Your task to perform on an android device: install app "Grab" Image 0: 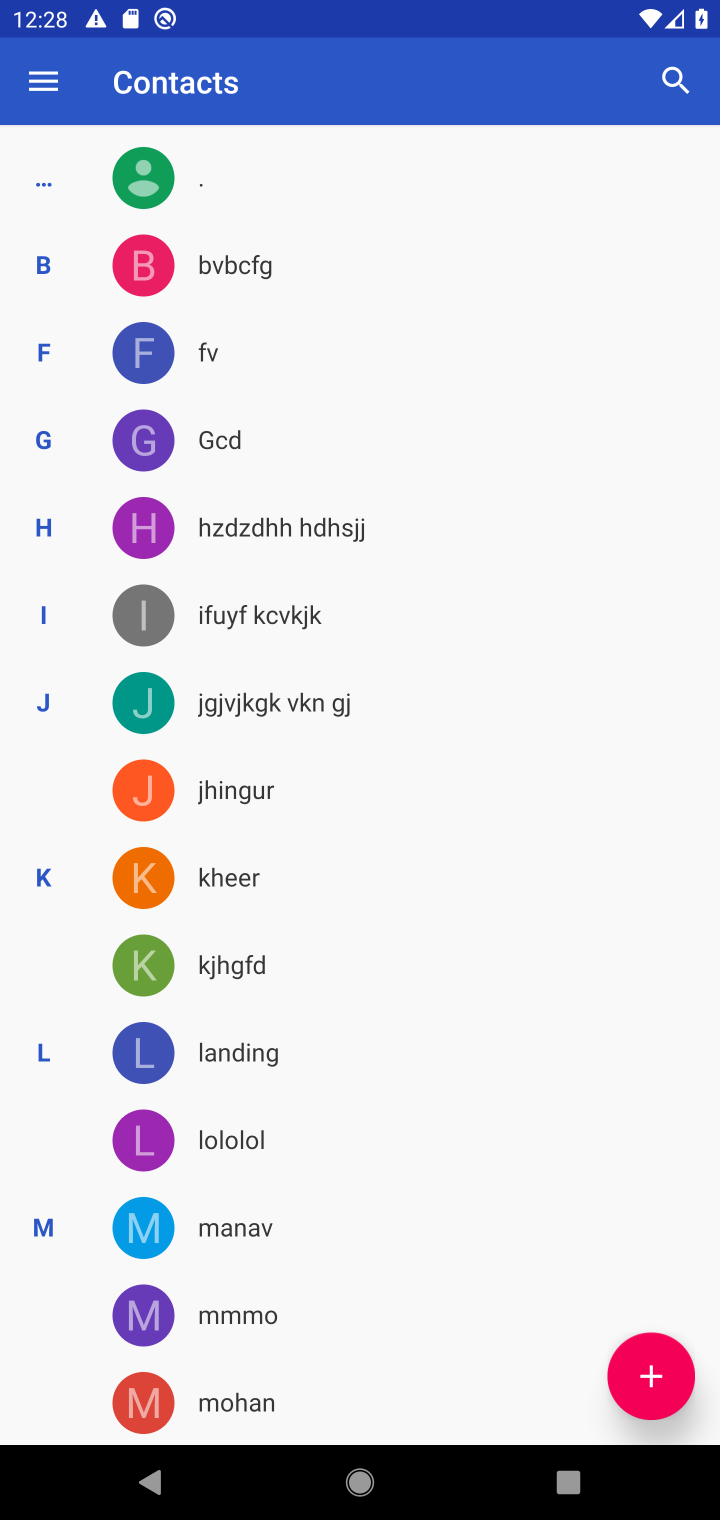
Step 0: press home button
Your task to perform on an android device: install app "Grab" Image 1: 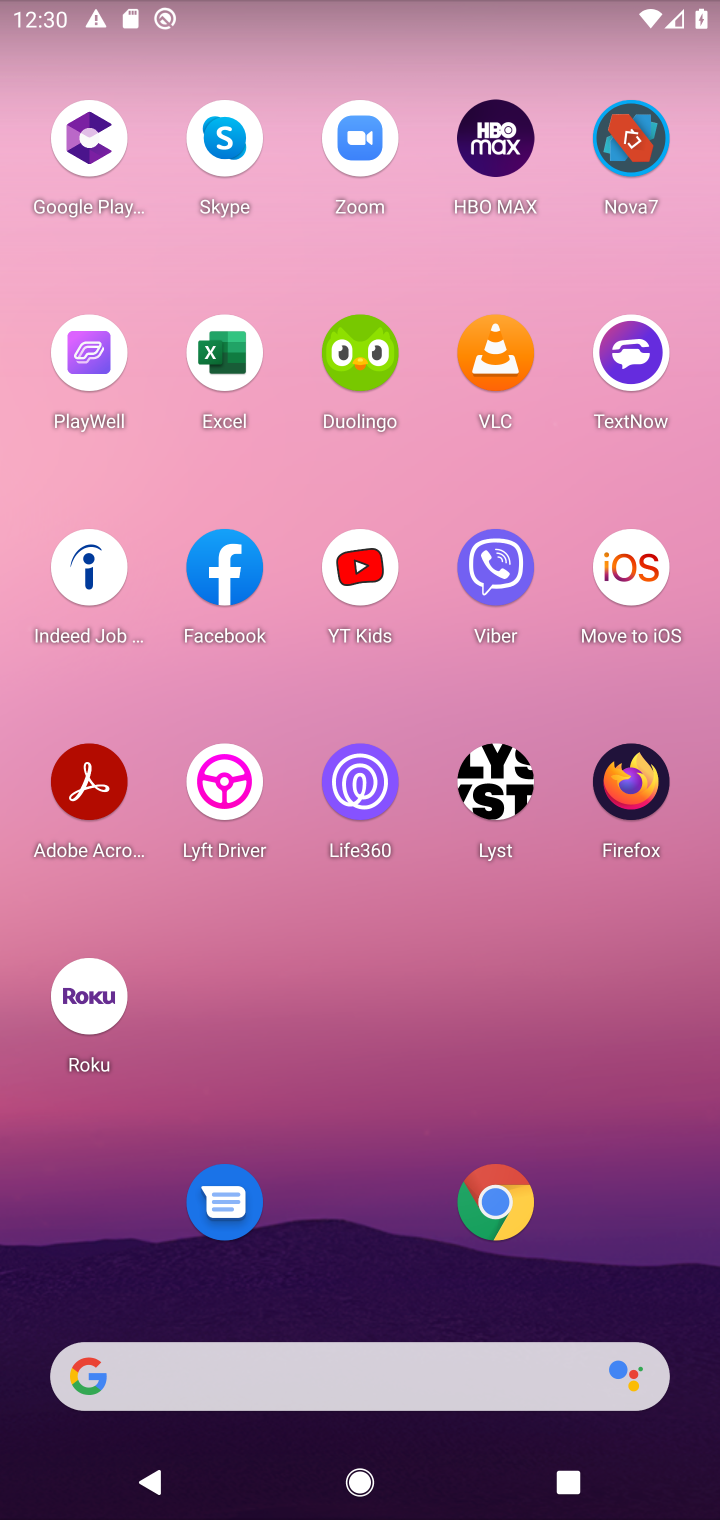
Step 1: click (341, 1364)
Your task to perform on an android device: install app "Grab" Image 2: 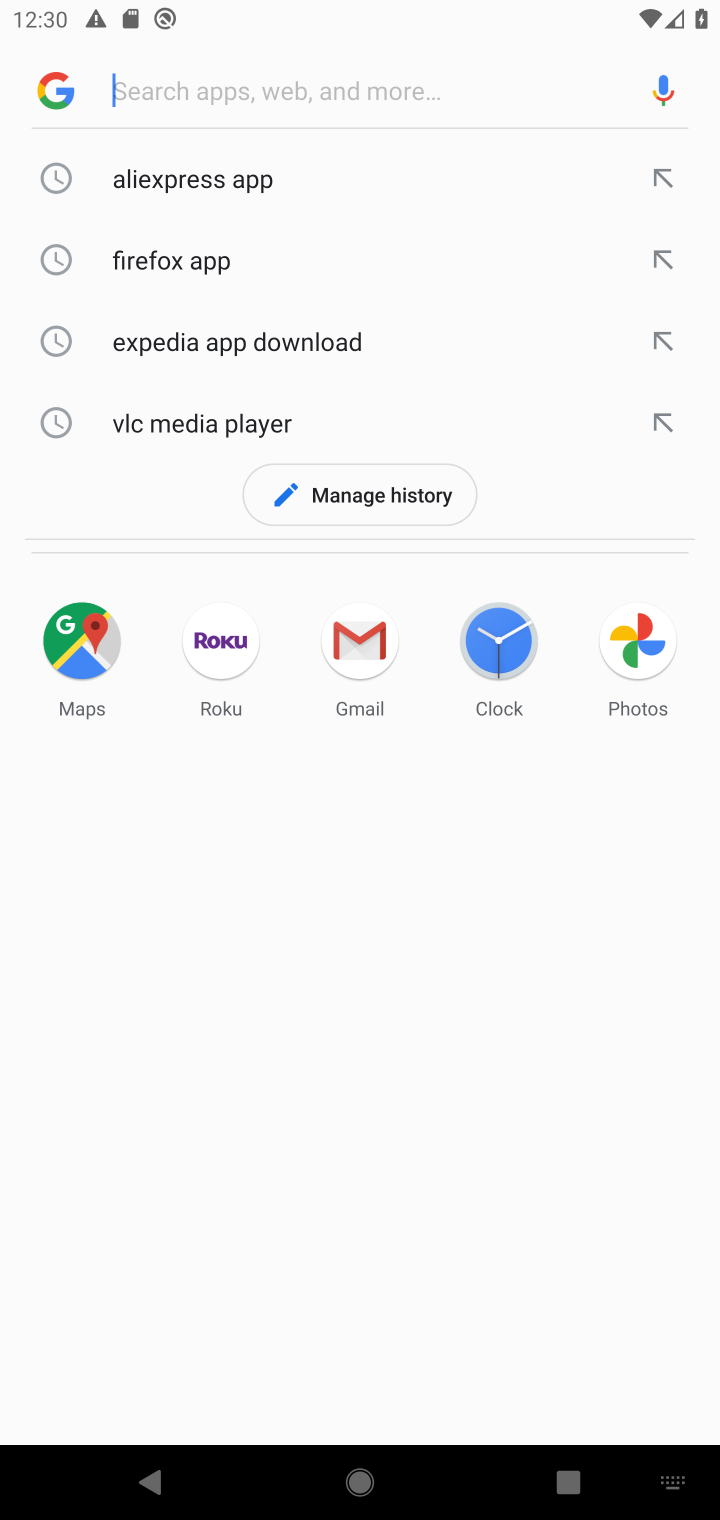
Step 2: type "grab"
Your task to perform on an android device: install app "Grab" Image 3: 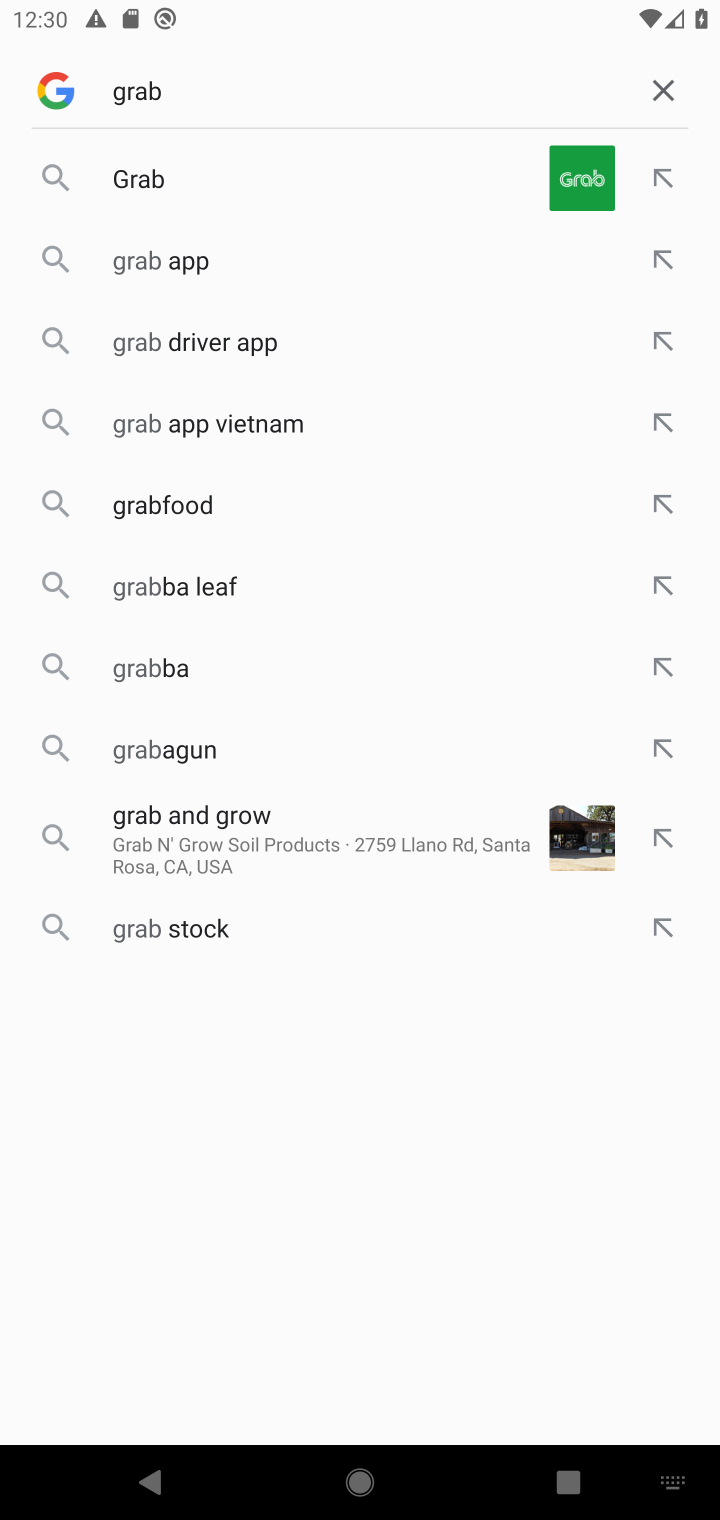
Step 3: click (294, 196)
Your task to perform on an android device: install app "Grab" Image 4: 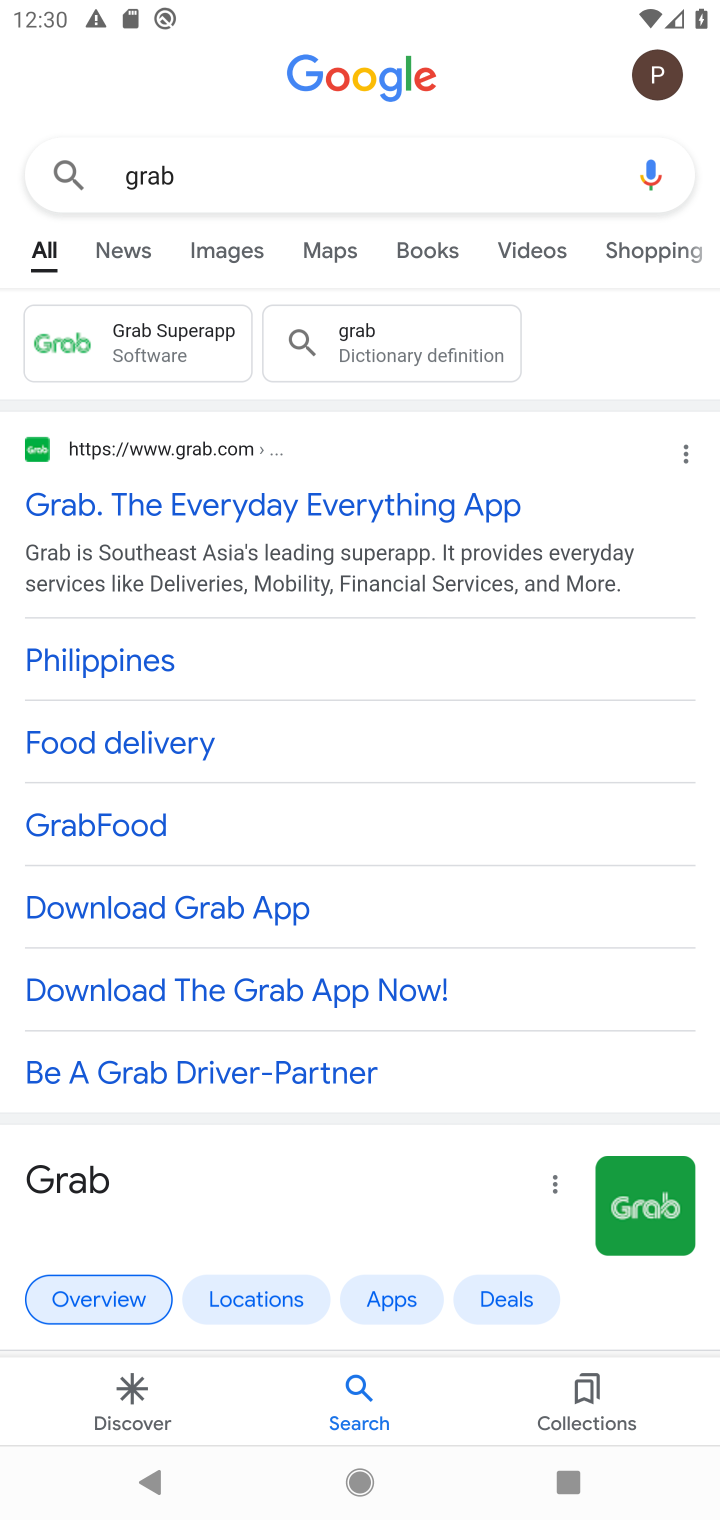
Step 4: drag from (503, 1213) to (461, 310)
Your task to perform on an android device: install app "Grab" Image 5: 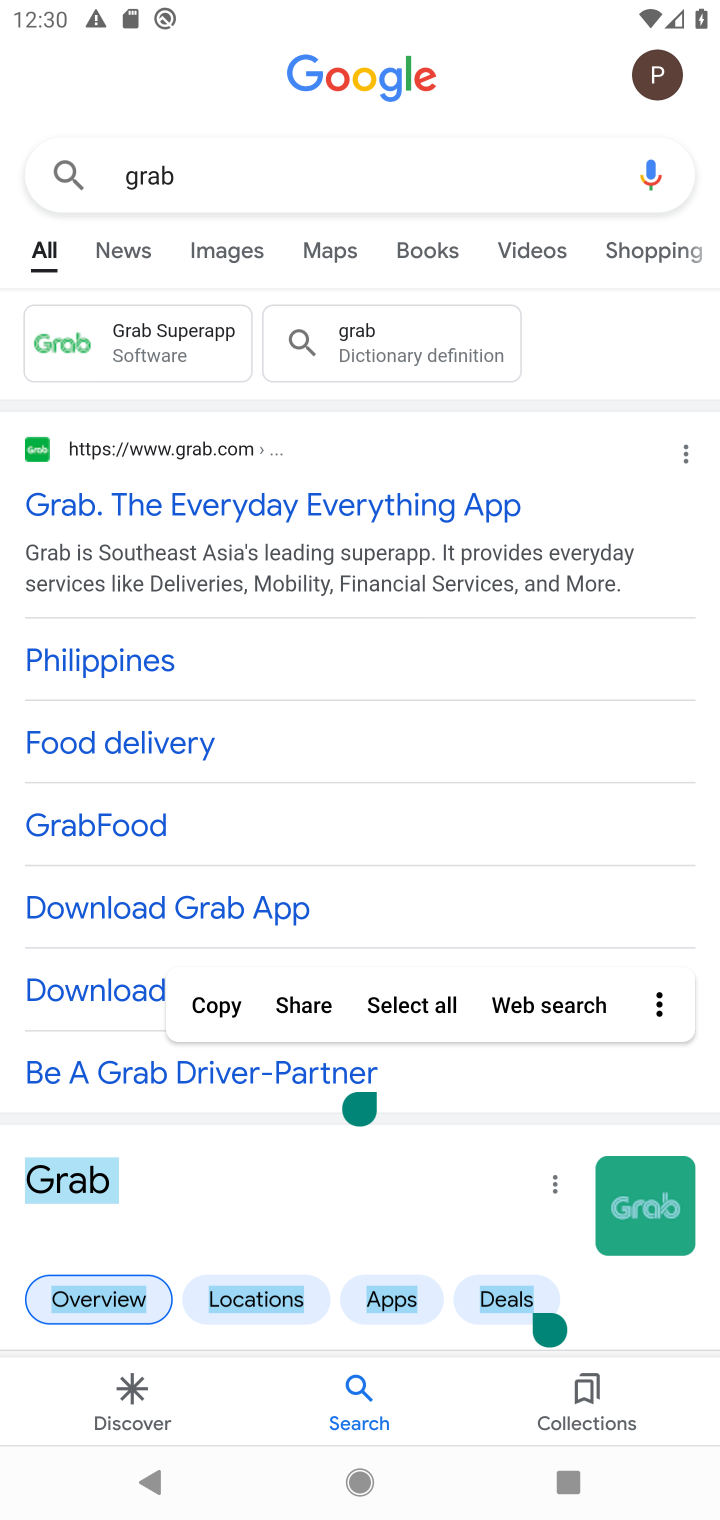
Step 5: click (316, 1182)
Your task to perform on an android device: install app "Grab" Image 6: 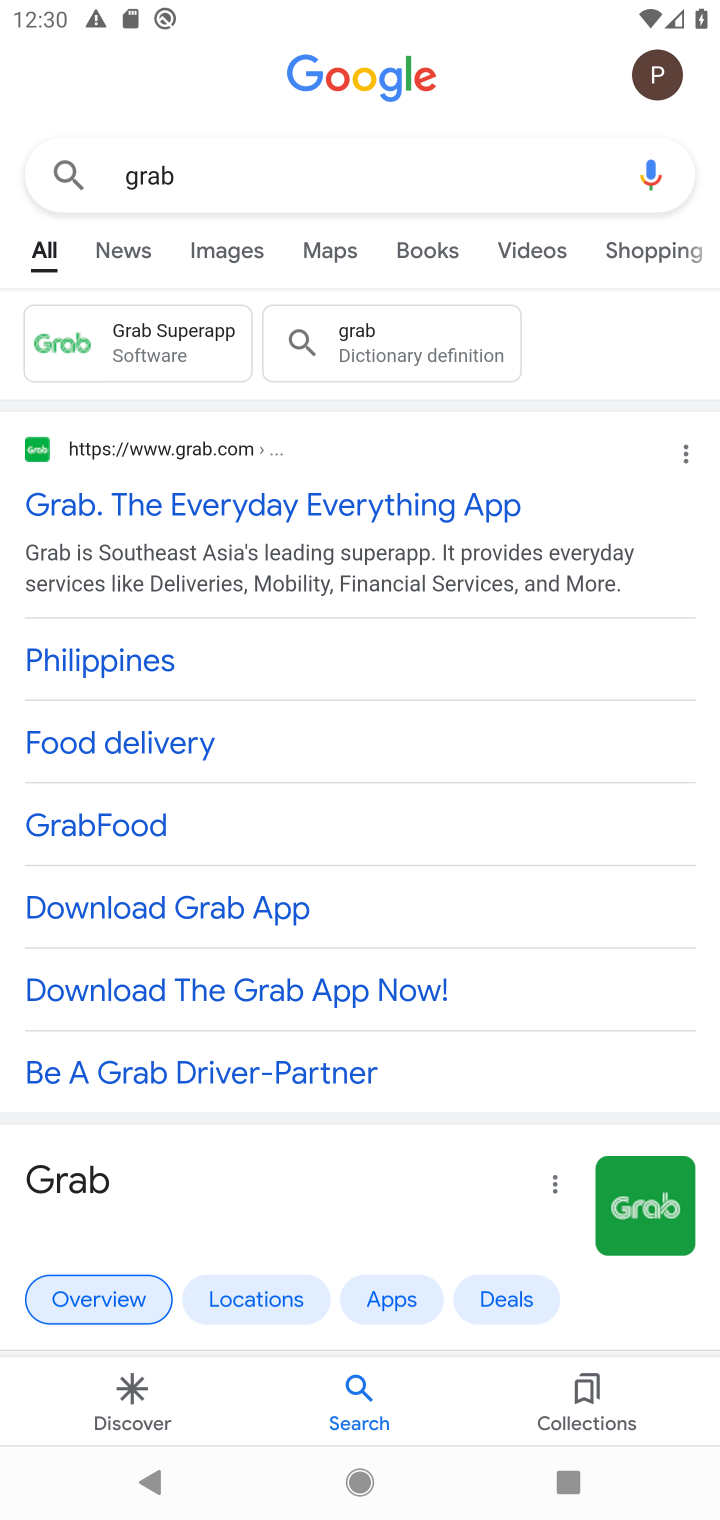
Step 6: drag from (316, 1182) to (310, 342)
Your task to perform on an android device: install app "Grab" Image 7: 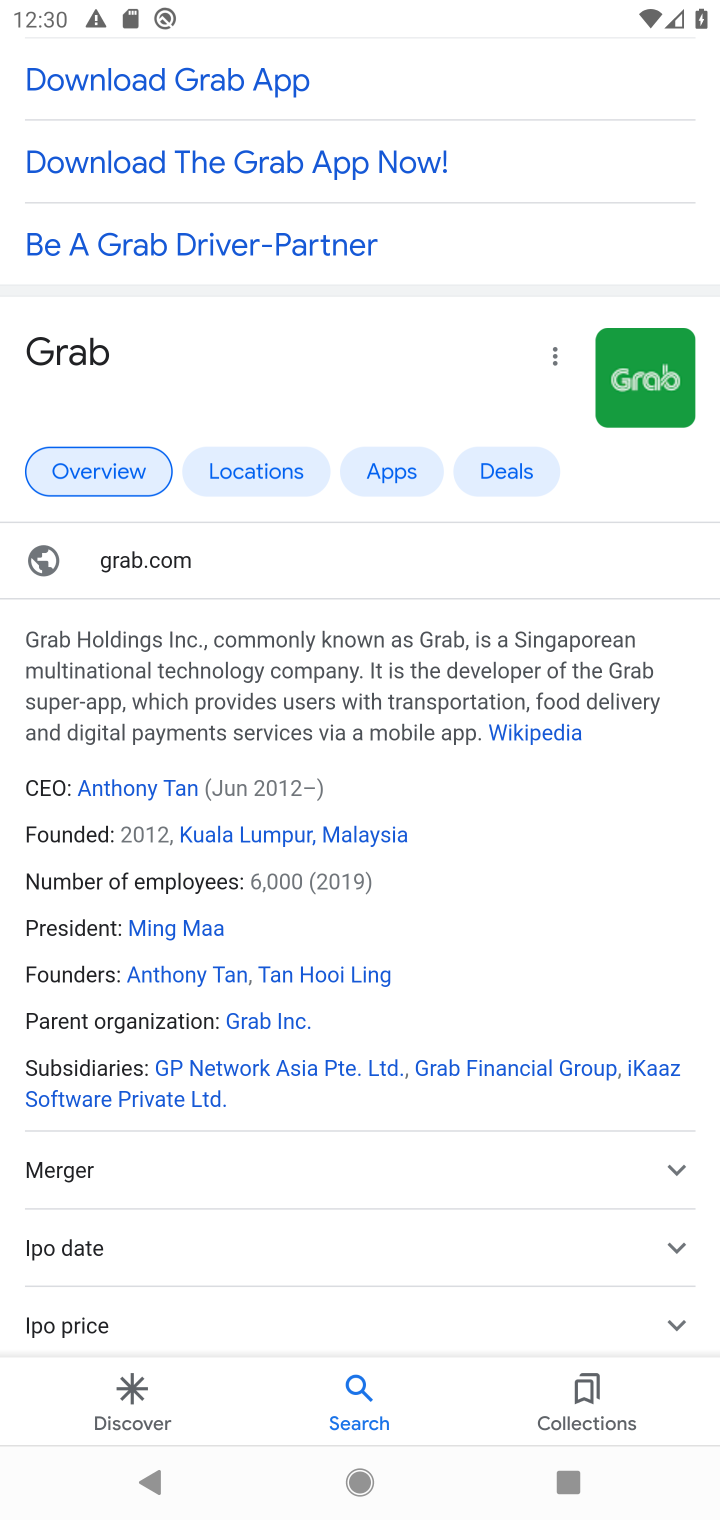
Step 7: drag from (520, 1160) to (378, 400)
Your task to perform on an android device: install app "Grab" Image 8: 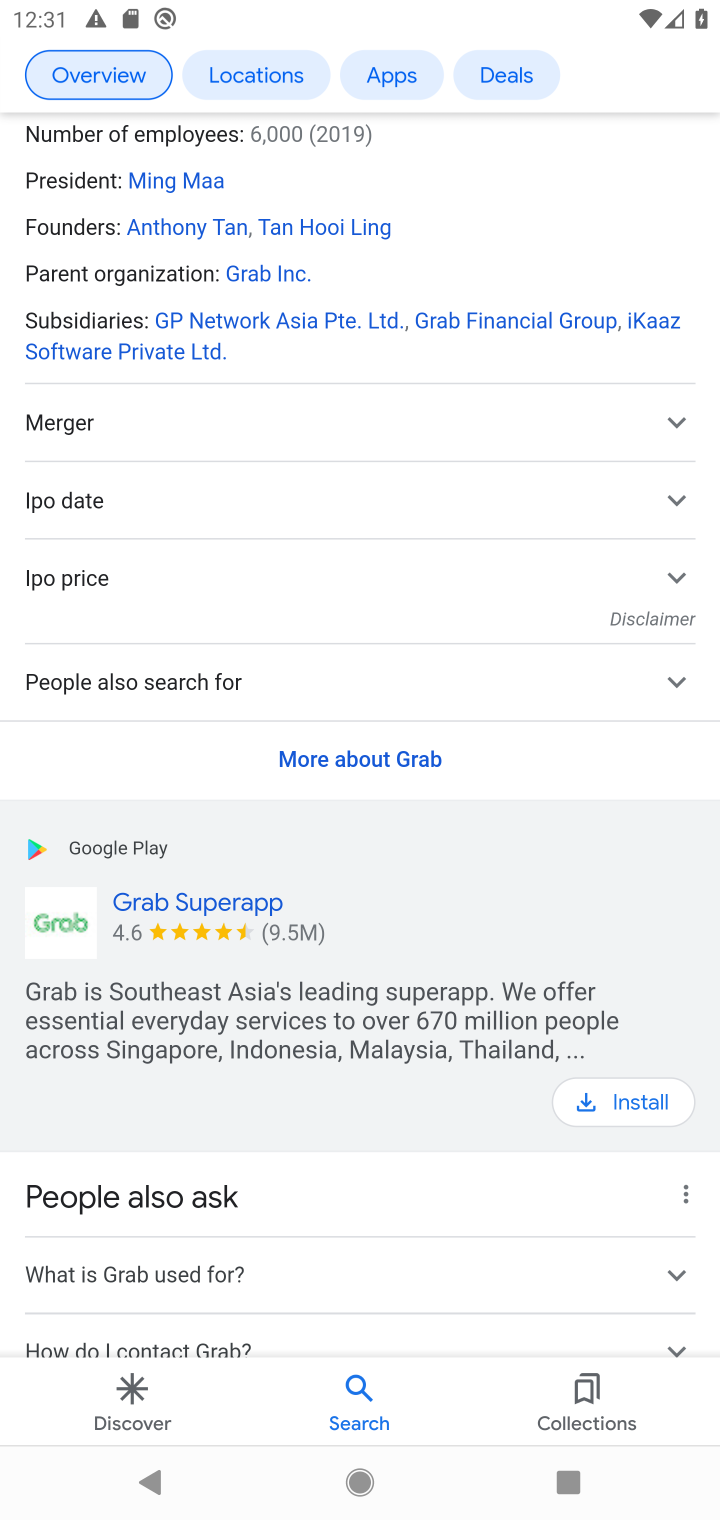
Step 8: click (600, 1090)
Your task to perform on an android device: install app "Grab" Image 9: 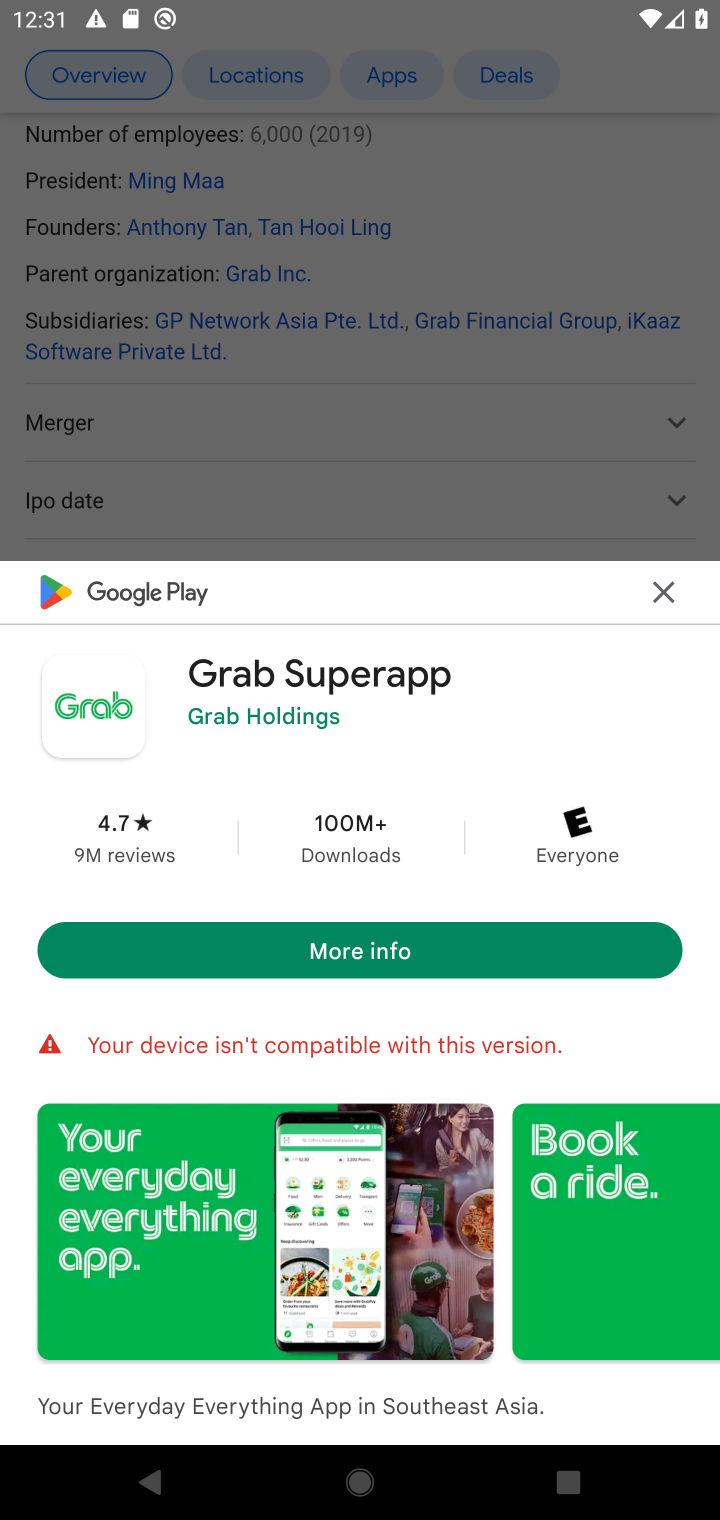
Step 9: task complete